Your task to perform on an android device: Show me popular videos on Youtube Image 0: 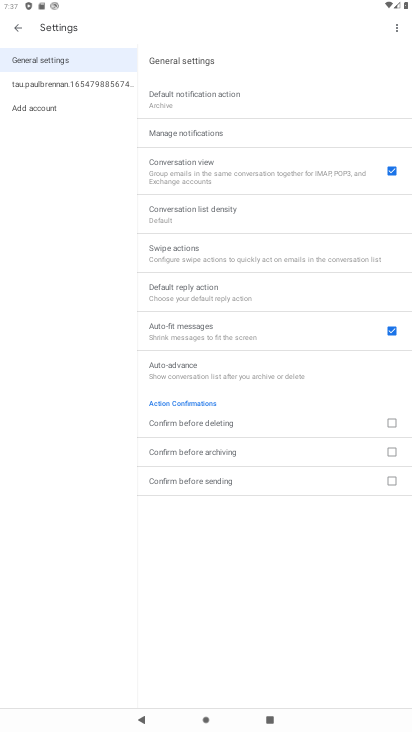
Step 0: press home button
Your task to perform on an android device: Show me popular videos on Youtube Image 1: 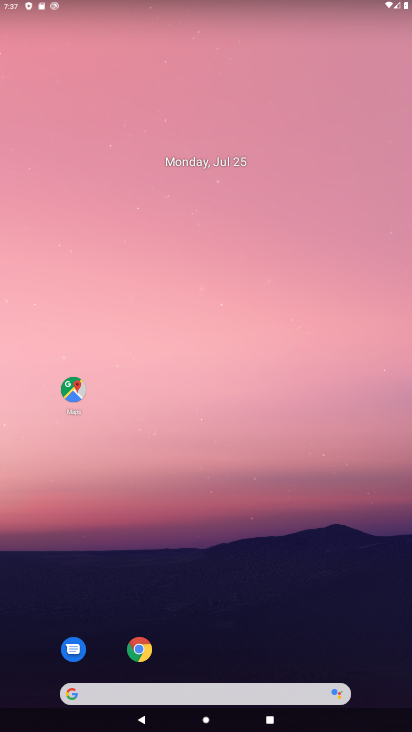
Step 1: drag from (300, 508) to (288, 251)
Your task to perform on an android device: Show me popular videos on Youtube Image 2: 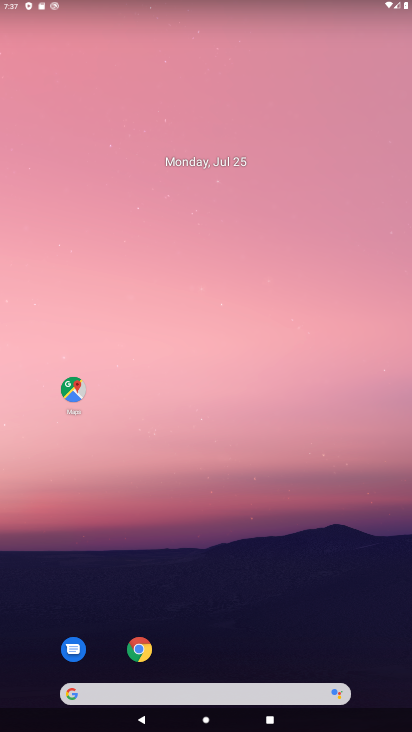
Step 2: drag from (386, 659) to (322, 102)
Your task to perform on an android device: Show me popular videos on Youtube Image 3: 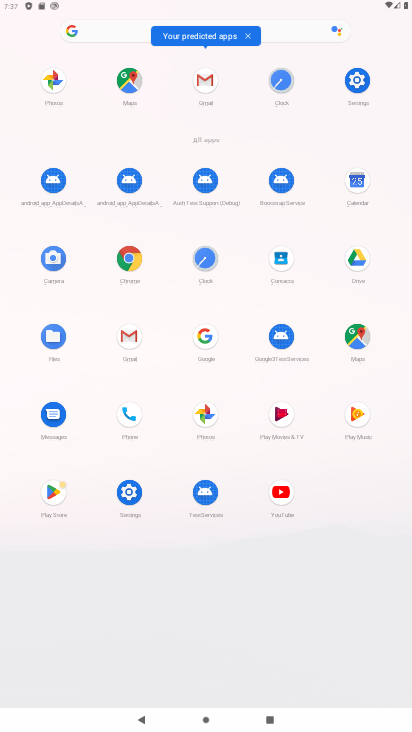
Step 3: click (279, 494)
Your task to perform on an android device: Show me popular videos on Youtube Image 4: 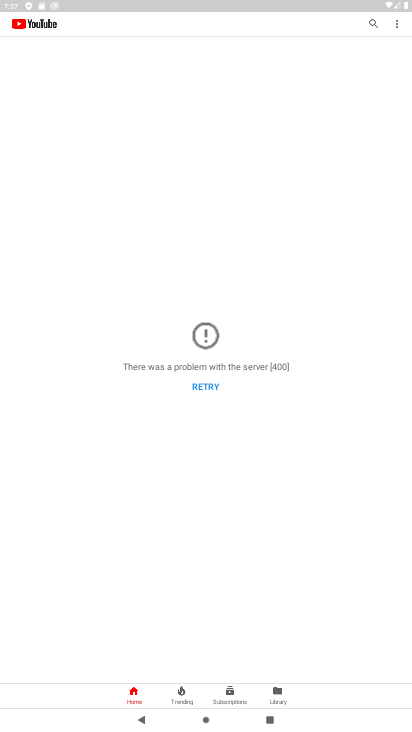
Step 4: click (203, 384)
Your task to perform on an android device: Show me popular videos on Youtube Image 5: 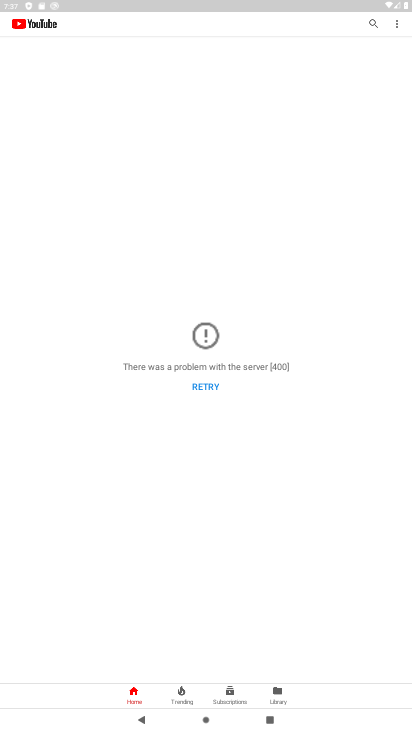
Step 5: click (203, 384)
Your task to perform on an android device: Show me popular videos on Youtube Image 6: 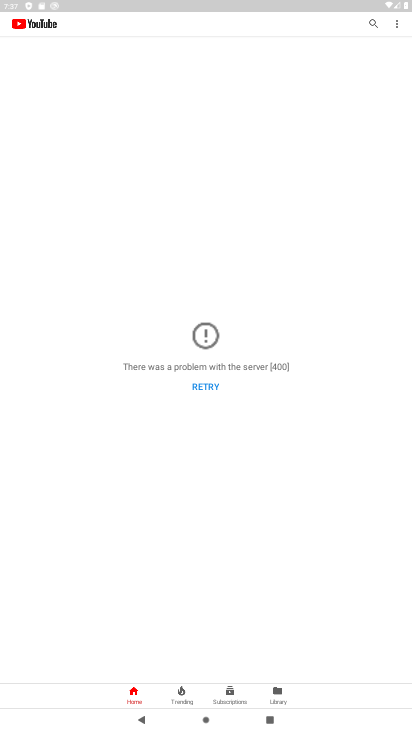
Step 6: task complete